Your task to perform on an android device: read, delete, or share a saved page in the chrome app Image 0: 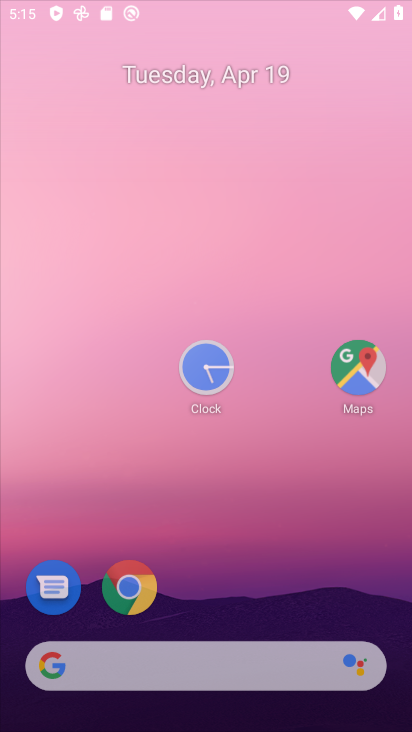
Step 0: click (362, 120)
Your task to perform on an android device: read, delete, or share a saved page in the chrome app Image 1: 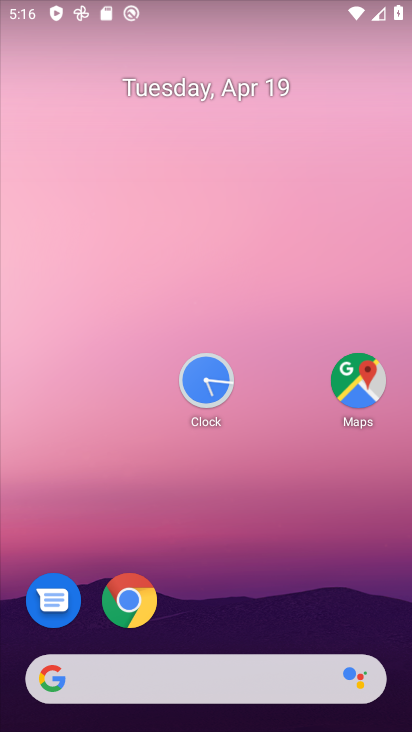
Step 1: drag from (299, 664) to (216, 205)
Your task to perform on an android device: read, delete, or share a saved page in the chrome app Image 2: 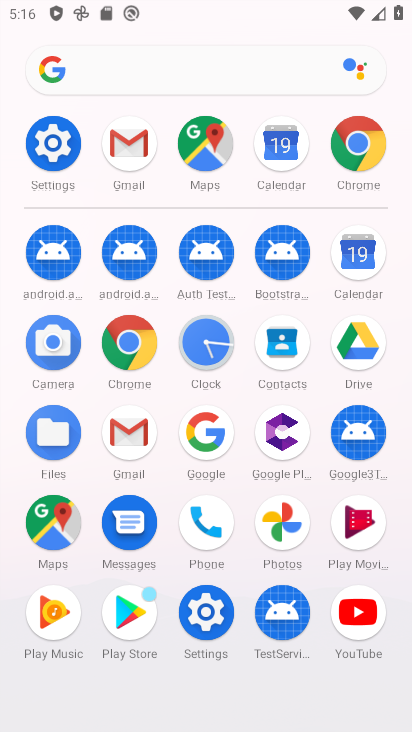
Step 2: click (365, 148)
Your task to perform on an android device: read, delete, or share a saved page in the chrome app Image 3: 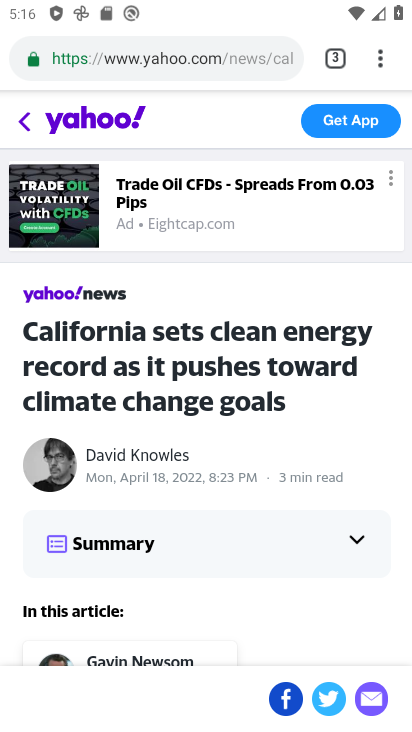
Step 3: click (382, 60)
Your task to perform on an android device: read, delete, or share a saved page in the chrome app Image 4: 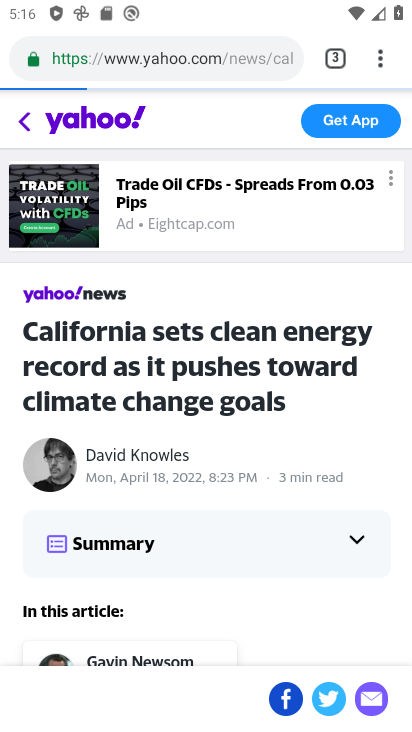
Step 4: click (379, 53)
Your task to perform on an android device: read, delete, or share a saved page in the chrome app Image 5: 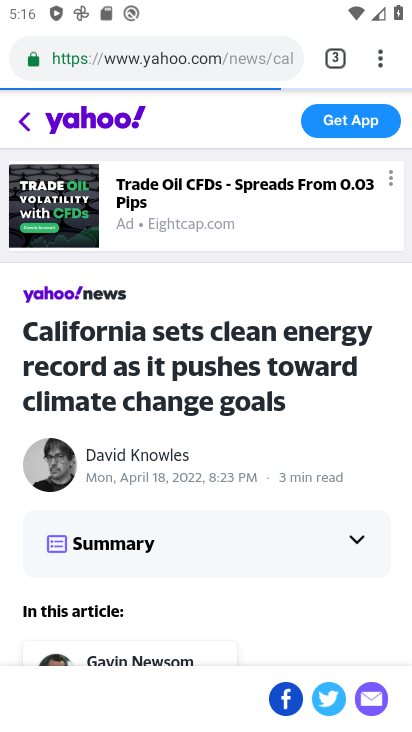
Step 5: click (379, 53)
Your task to perform on an android device: read, delete, or share a saved page in the chrome app Image 6: 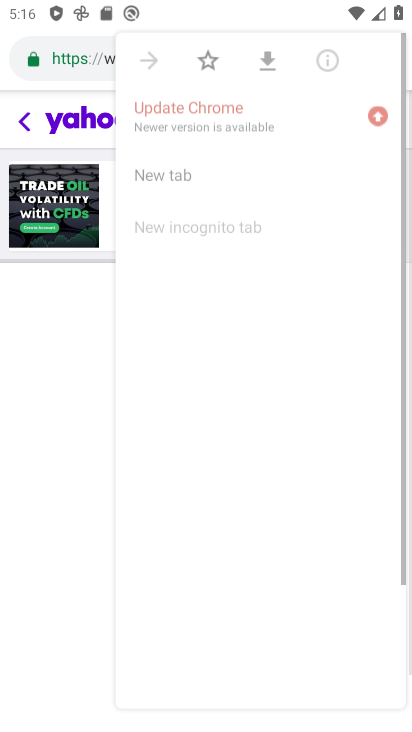
Step 6: click (379, 53)
Your task to perform on an android device: read, delete, or share a saved page in the chrome app Image 7: 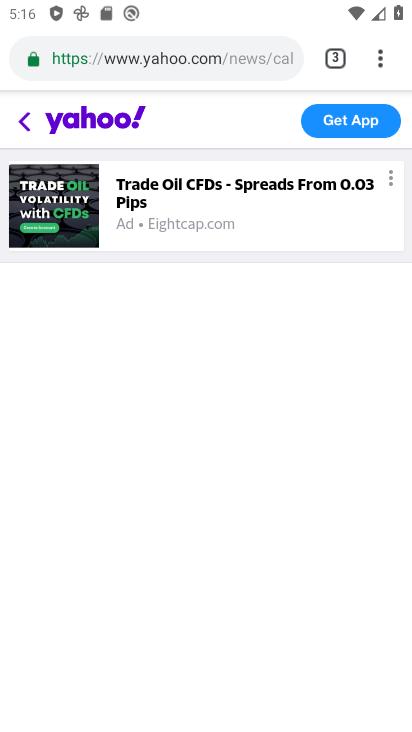
Step 7: click (380, 58)
Your task to perform on an android device: read, delete, or share a saved page in the chrome app Image 8: 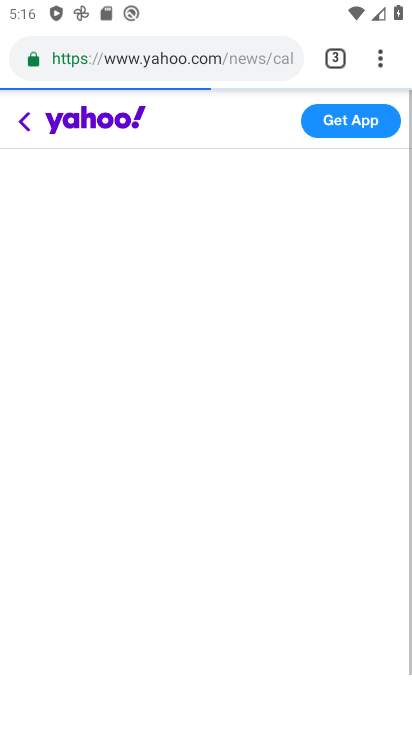
Step 8: click (380, 58)
Your task to perform on an android device: read, delete, or share a saved page in the chrome app Image 9: 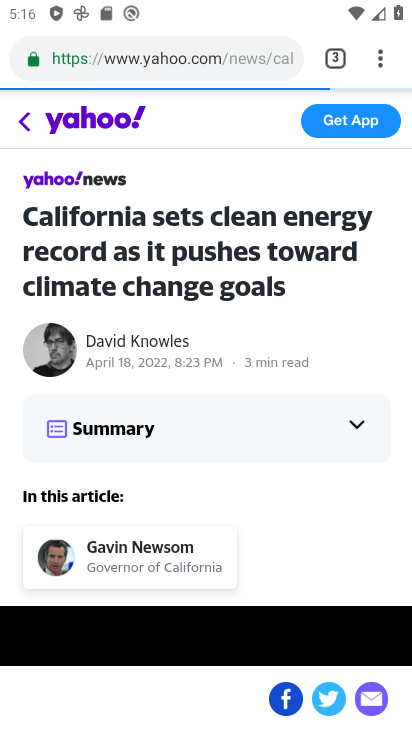
Step 9: click (380, 58)
Your task to perform on an android device: read, delete, or share a saved page in the chrome app Image 10: 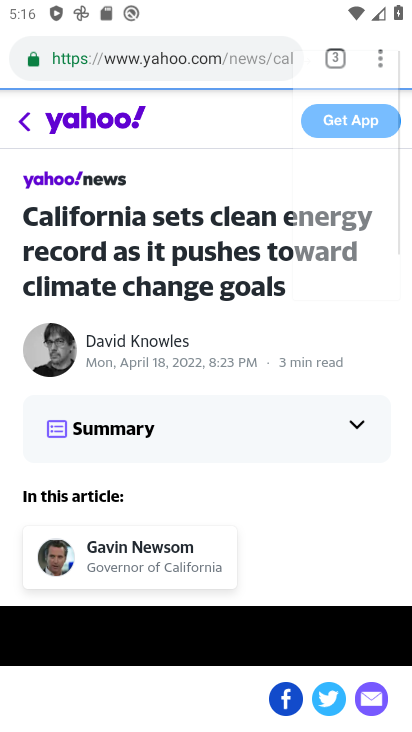
Step 10: click (380, 58)
Your task to perform on an android device: read, delete, or share a saved page in the chrome app Image 11: 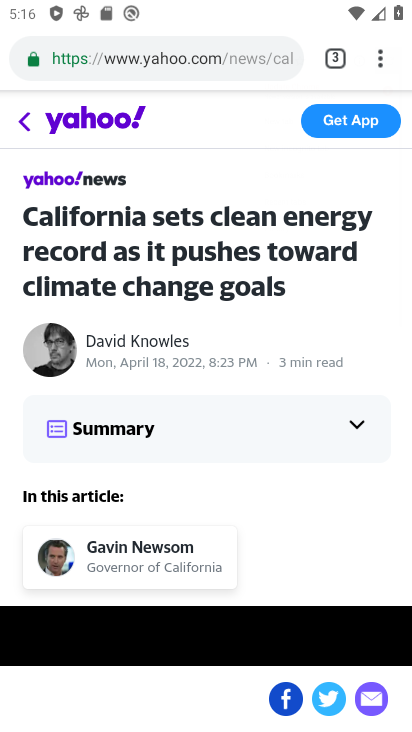
Step 11: click (380, 58)
Your task to perform on an android device: read, delete, or share a saved page in the chrome app Image 12: 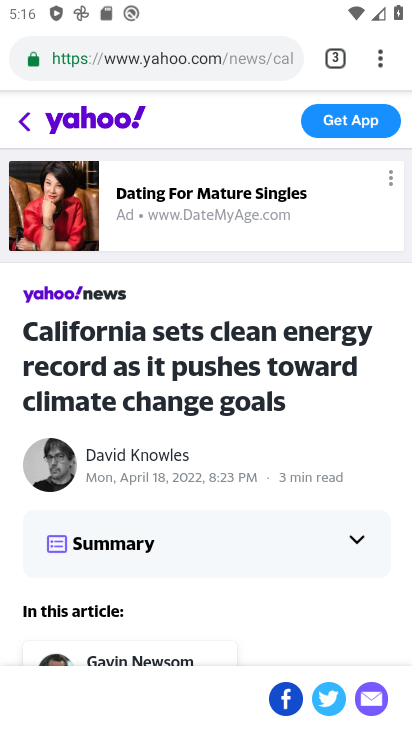
Step 12: click (383, 65)
Your task to perform on an android device: read, delete, or share a saved page in the chrome app Image 13: 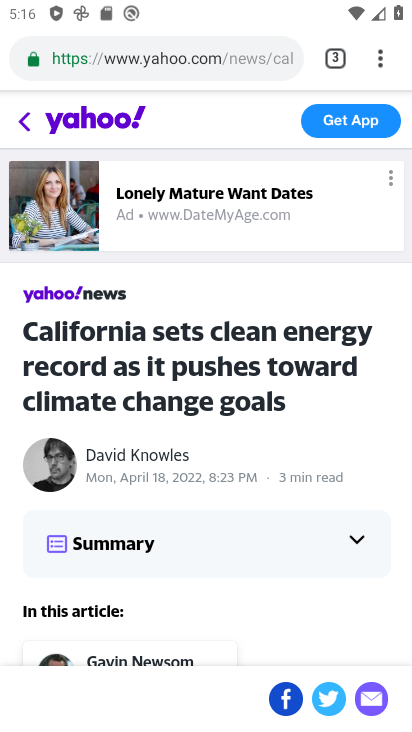
Step 13: click (374, 54)
Your task to perform on an android device: read, delete, or share a saved page in the chrome app Image 14: 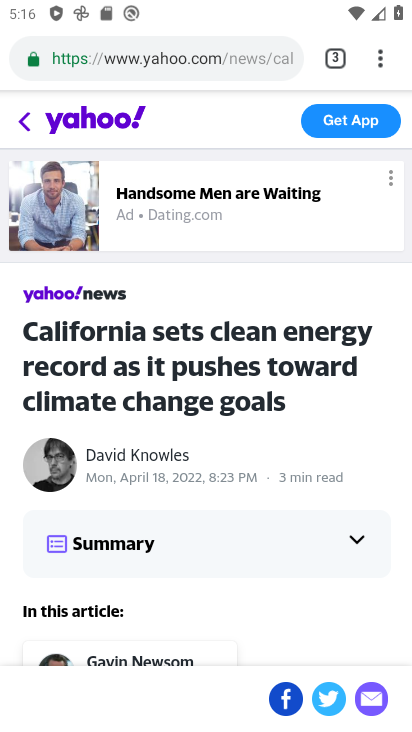
Step 14: click (381, 63)
Your task to perform on an android device: read, delete, or share a saved page in the chrome app Image 15: 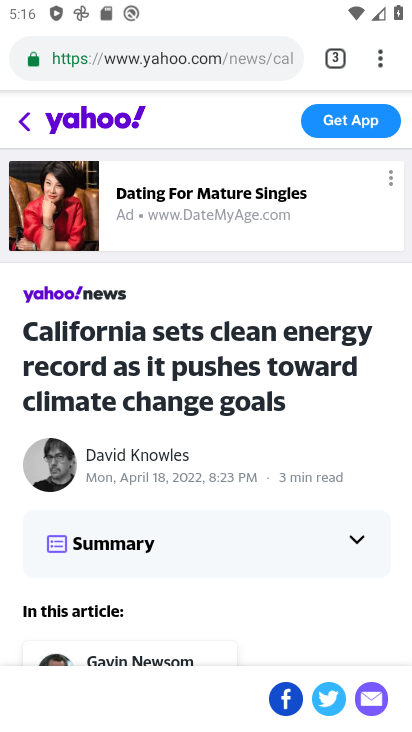
Step 15: click (374, 58)
Your task to perform on an android device: read, delete, or share a saved page in the chrome app Image 16: 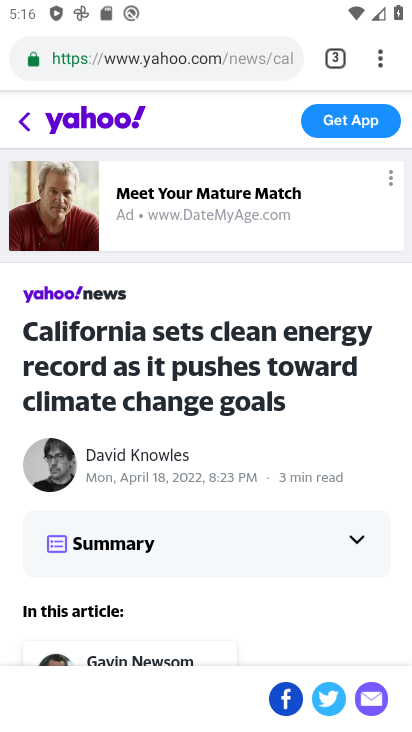
Step 16: click (378, 55)
Your task to perform on an android device: read, delete, or share a saved page in the chrome app Image 17: 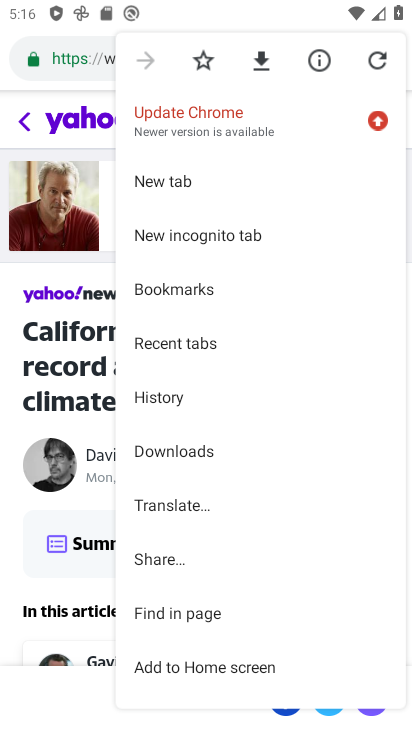
Step 17: drag from (185, 561) to (137, 312)
Your task to perform on an android device: read, delete, or share a saved page in the chrome app Image 18: 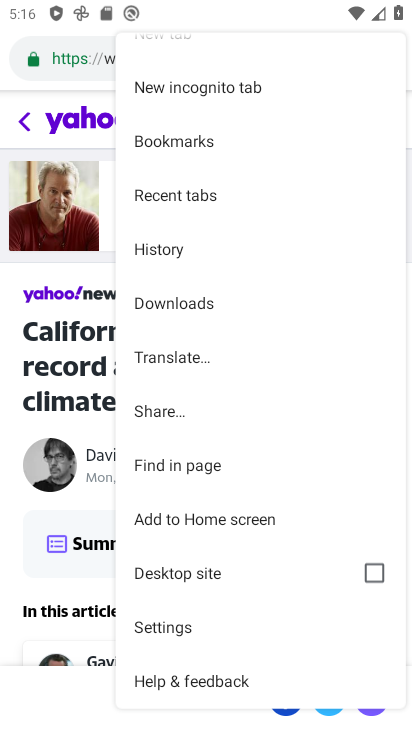
Step 18: click (185, 305)
Your task to perform on an android device: read, delete, or share a saved page in the chrome app Image 19: 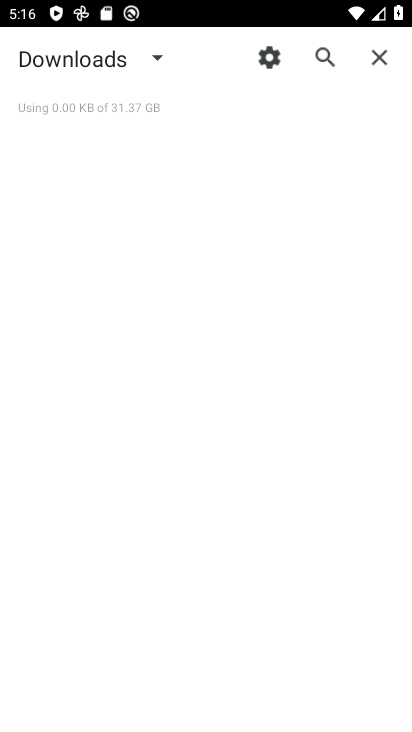
Step 19: click (163, 54)
Your task to perform on an android device: read, delete, or share a saved page in the chrome app Image 20: 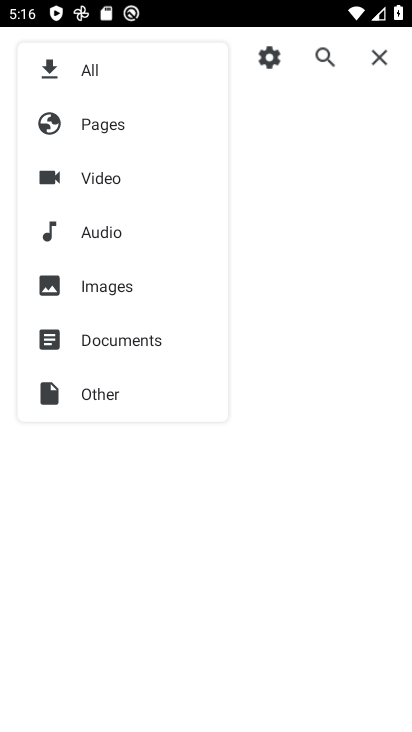
Step 20: click (92, 134)
Your task to perform on an android device: read, delete, or share a saved page in the chrome app Image 21: 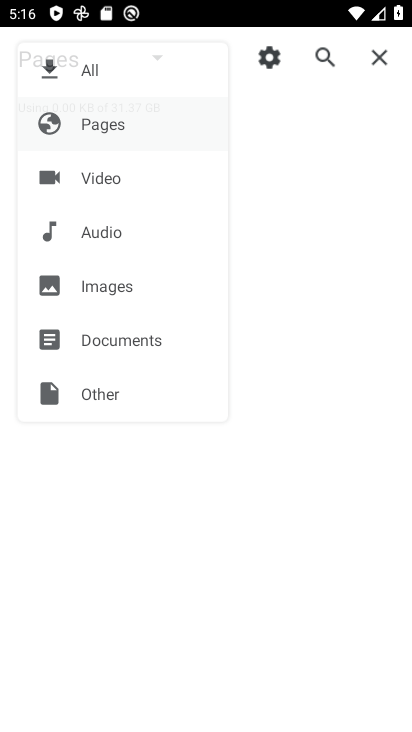
Step 21: click (98, 122)
Your task to perform on an android device: read, delete, or share a saved page in the chrome app Image 22: 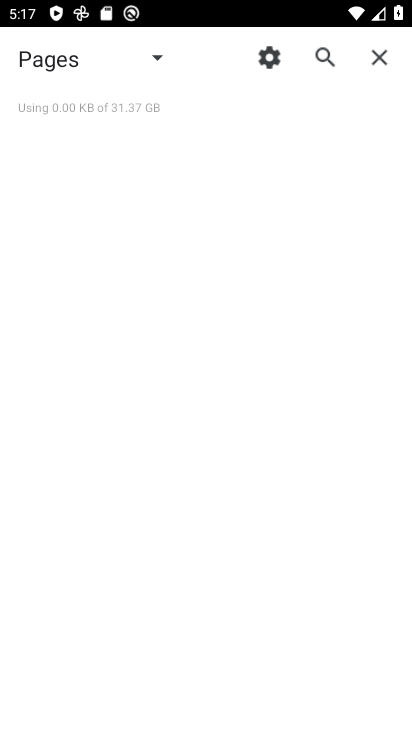
Step 22: task complete